Your task to perform on an android device: Open sound settings Image 0: 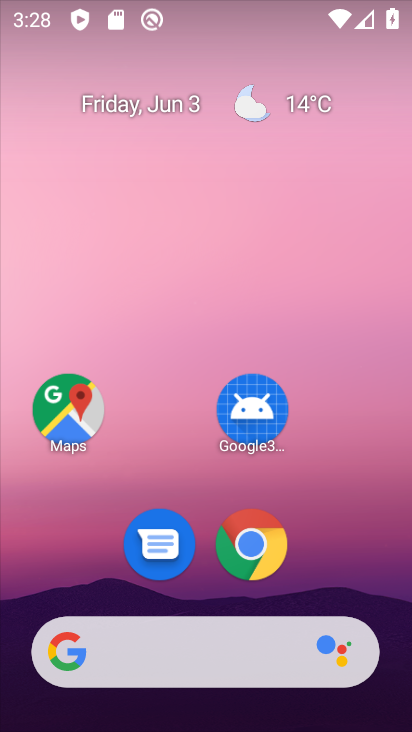
Step 0: drag from (95, 613) to (193, 127)
Your task to perform on an android device: Open sound settings Image 1: 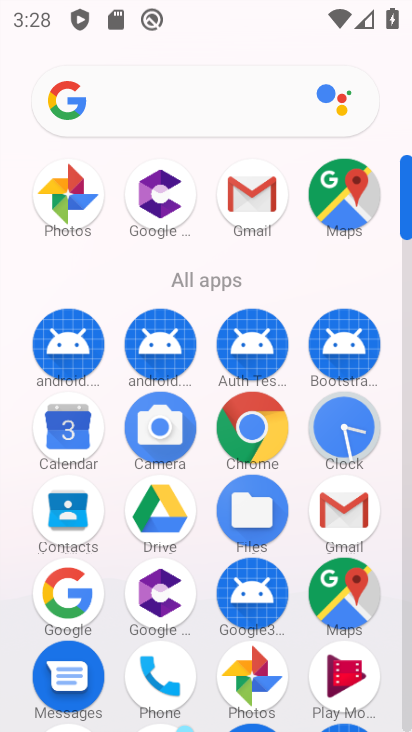
Step 1: drag from (157, 625) to (226, 381)
Your task to perform on an android device: Open sound settings Image 2: 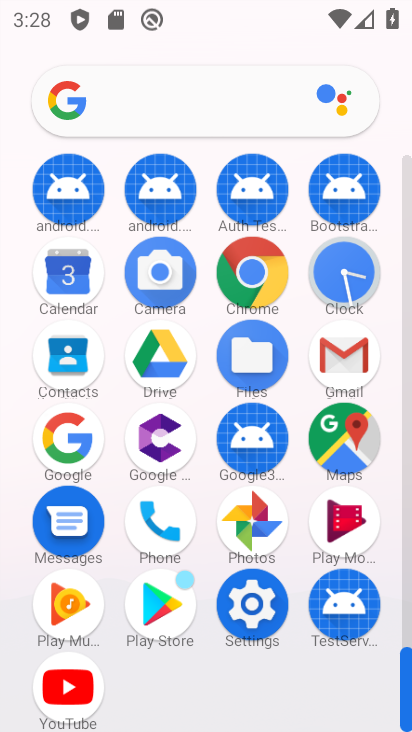
Step 2: click (261, 637)
Your task to perform on an android device: Open sound settings Image 3: 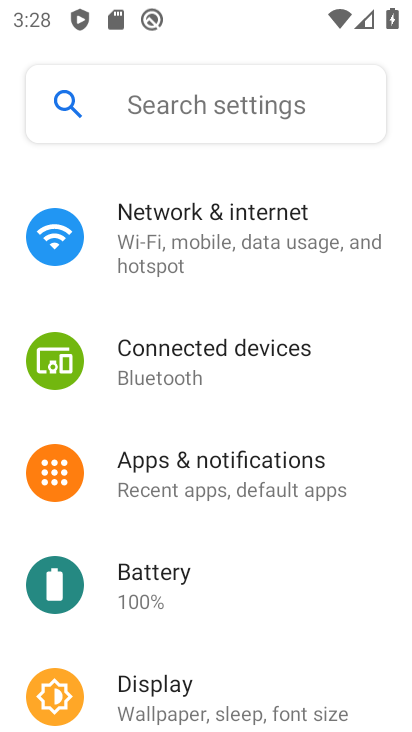
Step 3: drag from (150, 658) to (310, 227)
Your task to perform on an android device: Open sound settings Image 4: 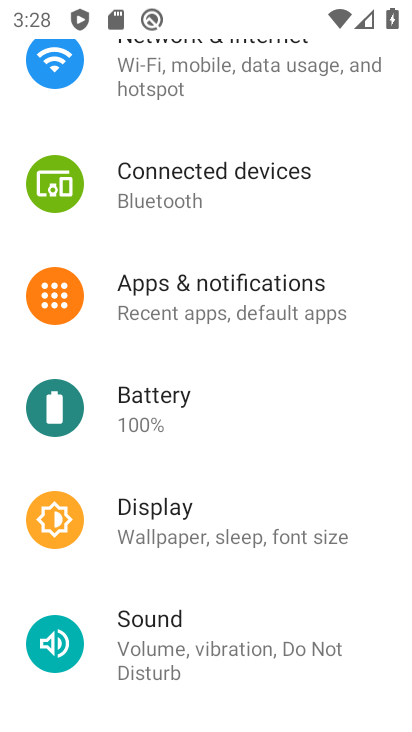
Step 4: drag from (158, 620) to (247, 338)
Your task to perform on an android device: Open sound settings Image 5: 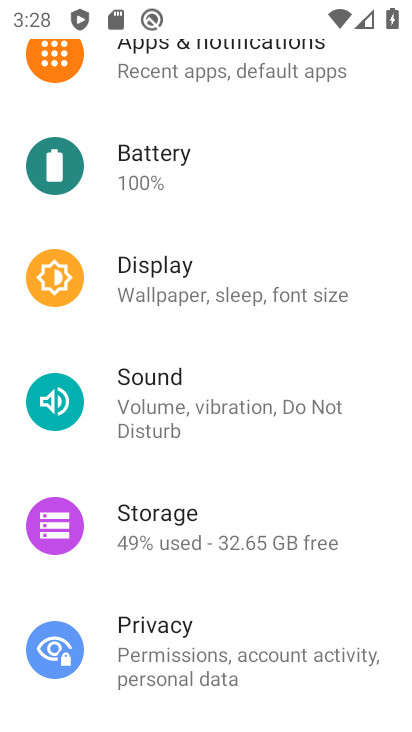
Step 5: click (220, 404)
Your task to perform on an android device: Open sound settings Image 6: 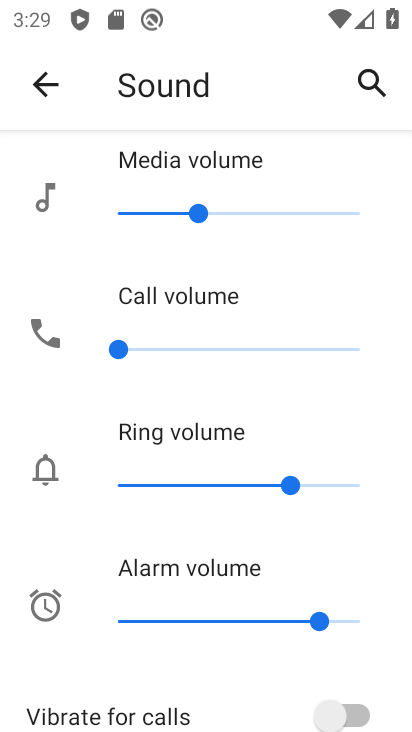
Step 6: task complete